Your task to perform on an android device: Show me productivity apps on the Play Store Image 0: 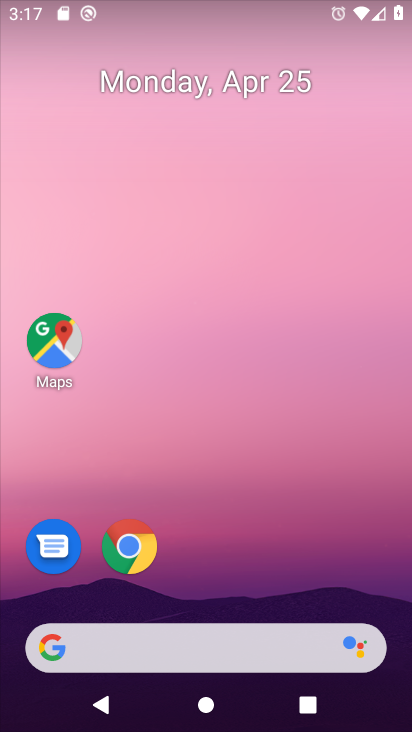
Step 0: drag from (290, 607) to (280, 176)
Your task to perform on an android device: Show me productivity apps on the Play Store Image 1: 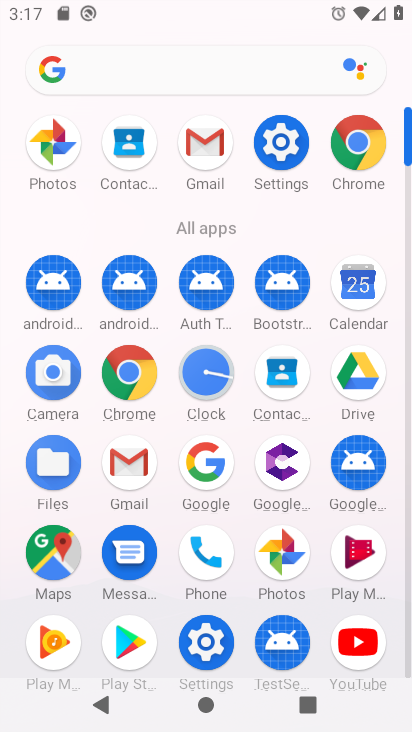
Step 1: click (139, 643)
Your task to perform on an android device: Show me productivity apps on the Play Store Image 2: 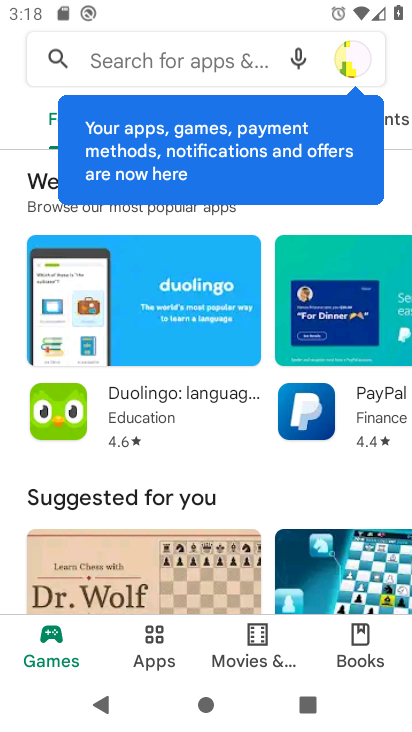
Step 2: click (168, 646)
Your task to perform on an android device: Show me productivity apps on the Play Store Image 3: 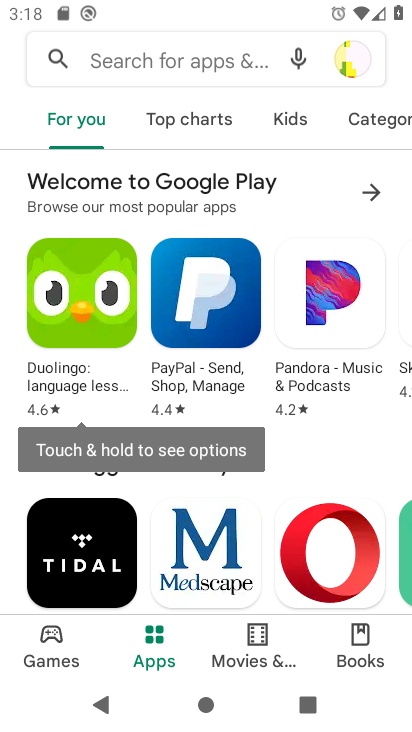
Step 3: click (392, 112)
Your task to perform on an android device: Show me productivity apps on the Play Store Image 4: 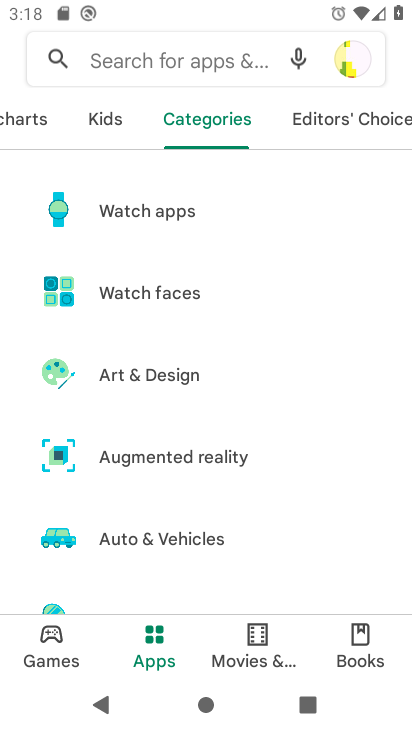
Step 4: drag from (254, 579) to (257, 94)
Your task to perform on an android device: Show me productivity apps on the Play Store Image 5: 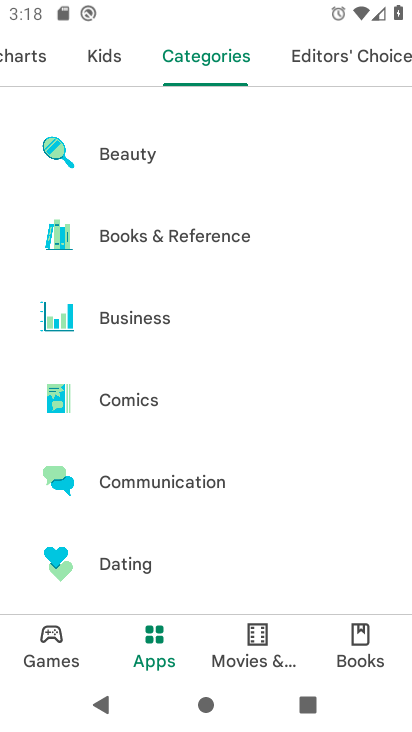
Step 5: drag from (258, 488) to (268, 108)
Your task to perform on an android device: Show me productivity apps on the Play Store Image 6: 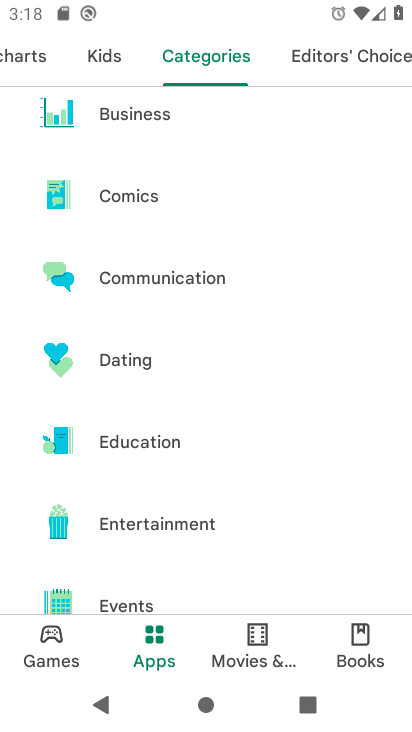
Step 6: drag from (334, 429) to (337, 95)
Your task to perform on an android device: Show me productivity apps on the Play Store Image 7: 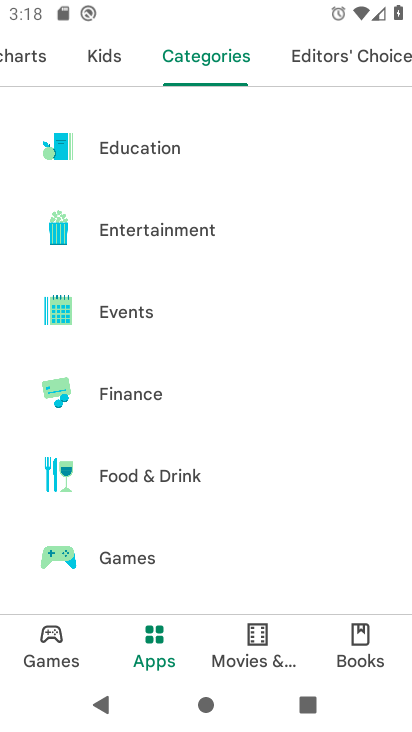
Step 7: drag from (240, 535) to (241, 141)
Your task to perform on an android device: Show me productivity apps on the Play Store Image 8: 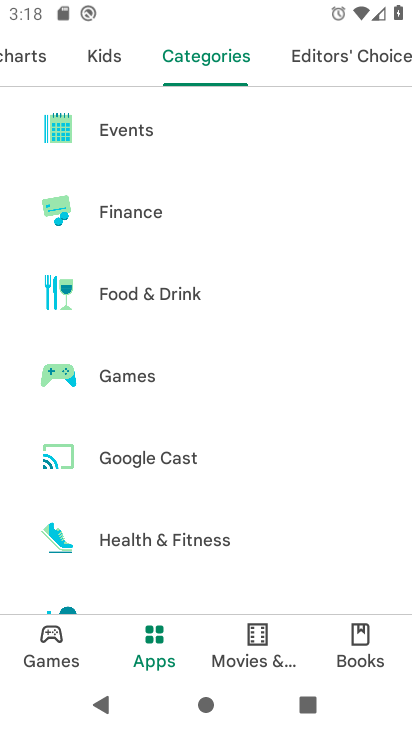
Step 8: drag from (221, 341) to (217, 21)
Your task to perform on an android device: Show me productivity apps on the Play Store Image 9: 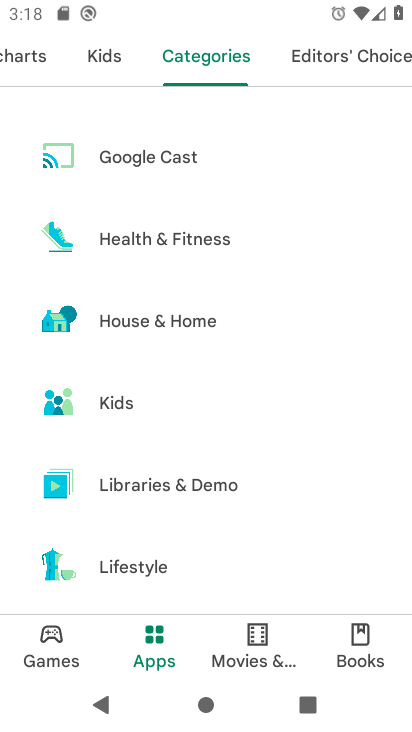
Step 9: drag from (149, 498) to (126, 275)
Your task to perform on an android device: Show me productivity apps on the Play Store Image 10: 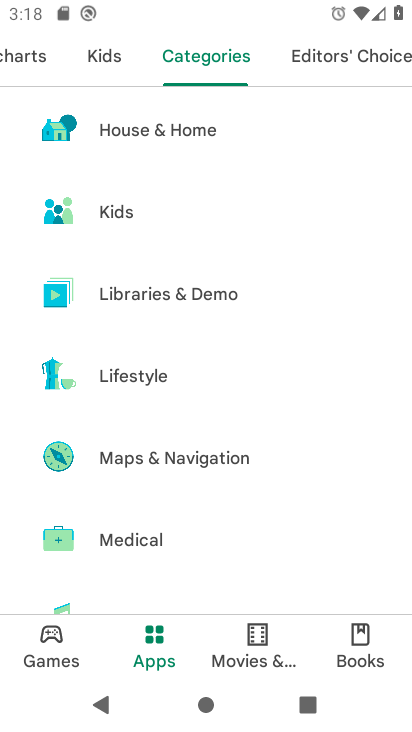
Step 10: drag from (136, 553) to (133, 271)
Your task to perform on an android device: Show me productivity apps on the Play Store Image 11: 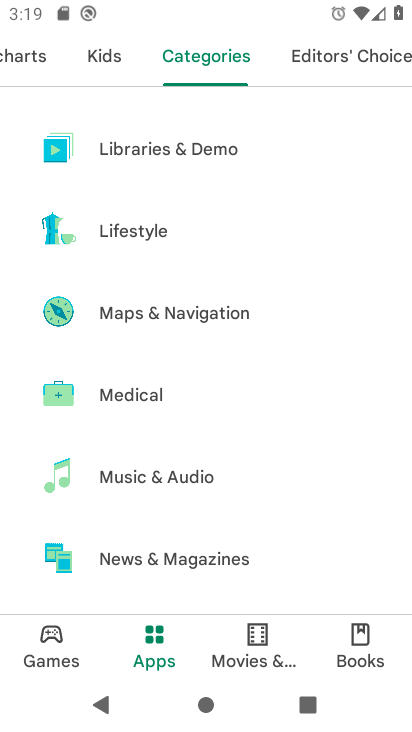
Step 11: drag from (146, 525) to (142, 288)
Your task to perform on an android device: Show me productivity apps on the Play Store Image 12: 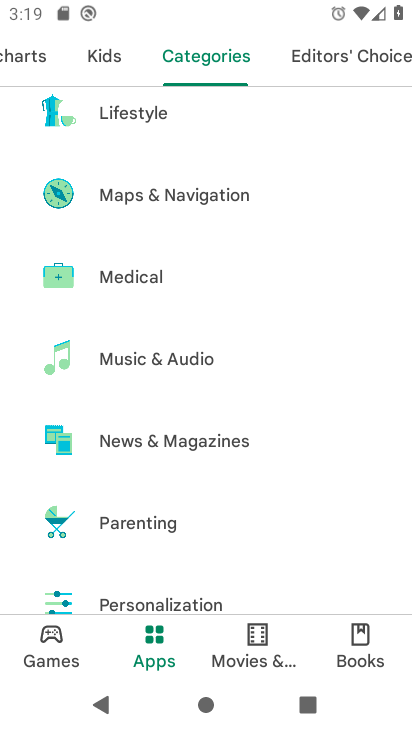
Step 12: drag from (189, 534) to (176, 237)
Your task to perform on an android device: Show me productivity apps on the Play Store Image 13: 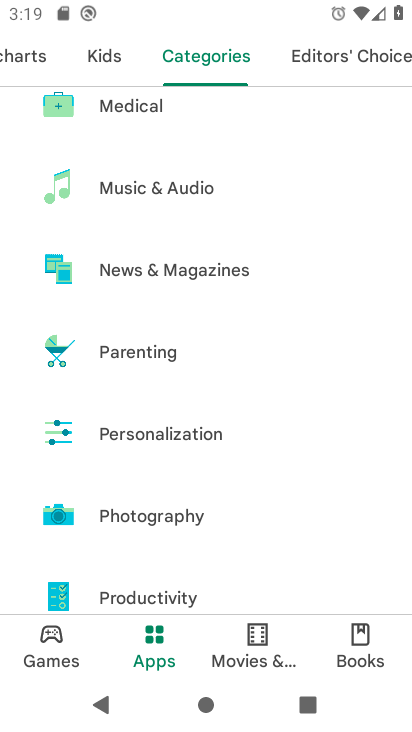
Step 13: click (199, 601)
Your task to perform on an android device: Show me productivity apps on the Play Store Image 14: 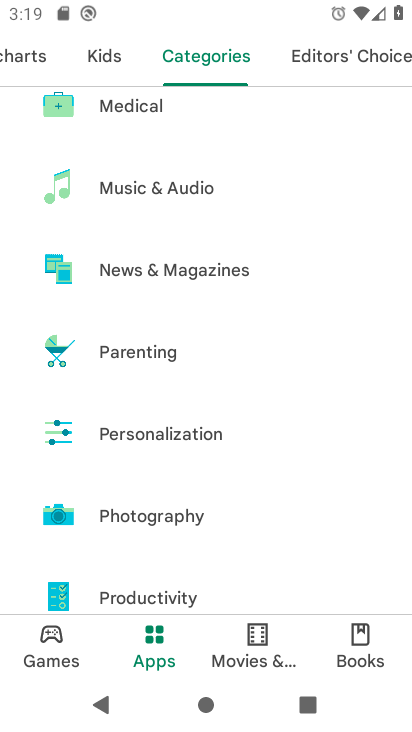
Step 14: click (199, 588)
Your task to perform on an android device: Show me productivity apps on the Play Store Image 15: 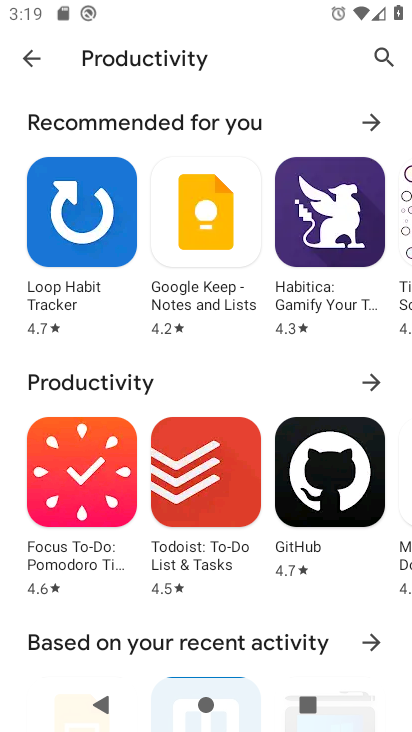
Step 15: task complete